Your task to perform on an android device: Go to Amazon Image 0: 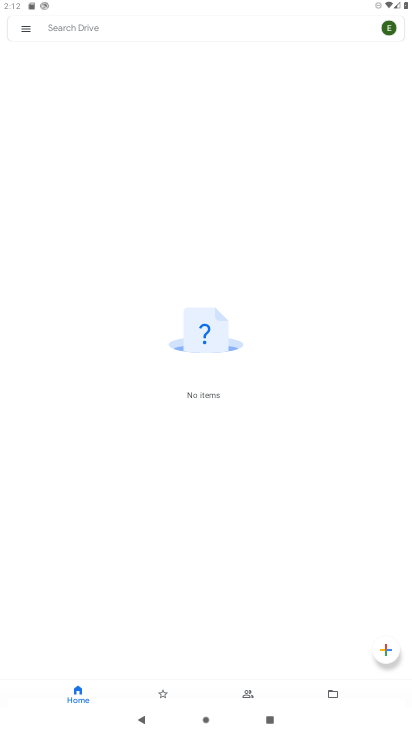
Step 0: press home button
Your task to perform on an android device: Go to Amazon Image 1: 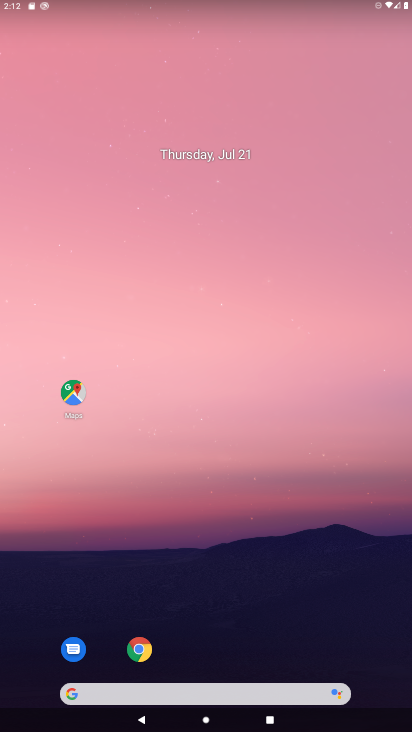
Step 1: drag from (275, 605) to (9, 12)
Your task to perform on an android device: Go to Amazon Image 2: 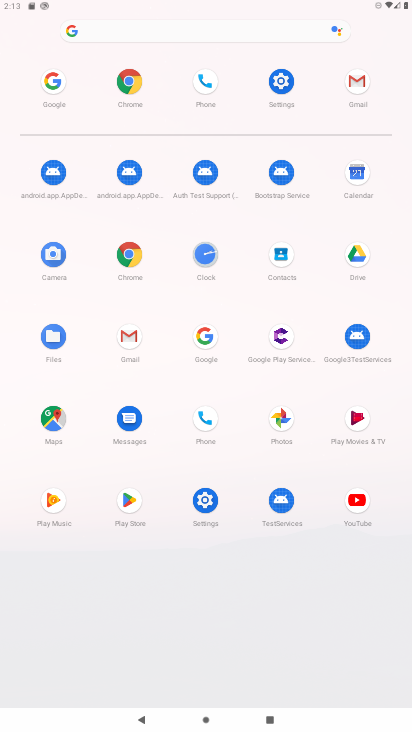
Step 2: click (129, 89)
Your task to perform on an android device: Go to Amazon Image 3: 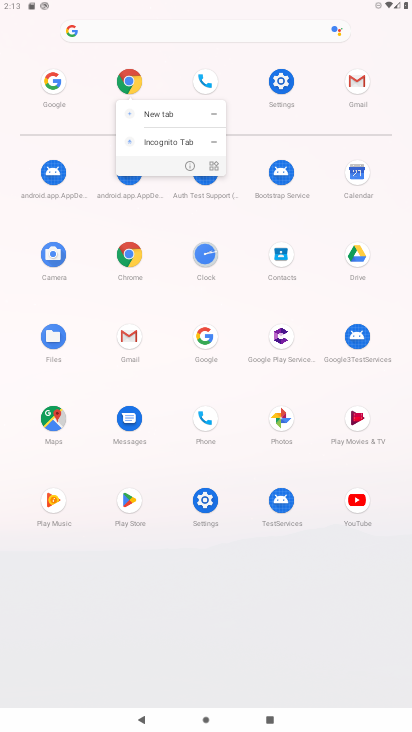
Step 3: click (129, 89)
Your task to perform on an android device: Go to Amazon Image 4: 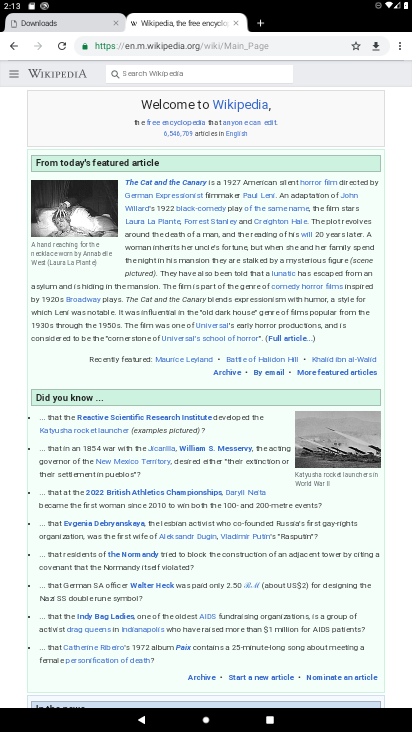
Step 4: click (17, 49)
Your task to perform on an android device: Go to Amazon Image 5: 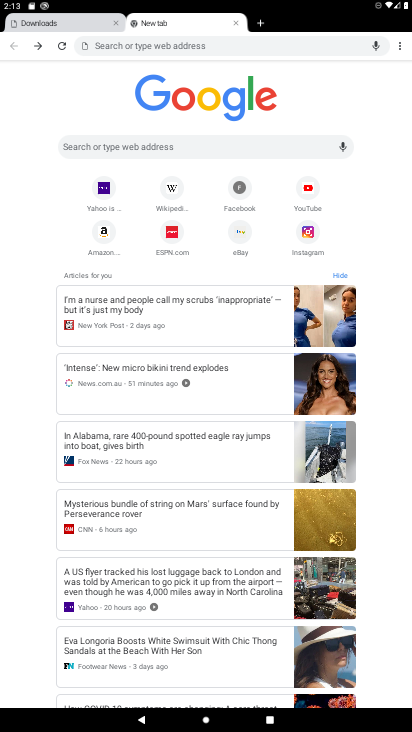
Step 5: click (104, 235)
Your task to perform on an android device: Go to Amazon Image 6: 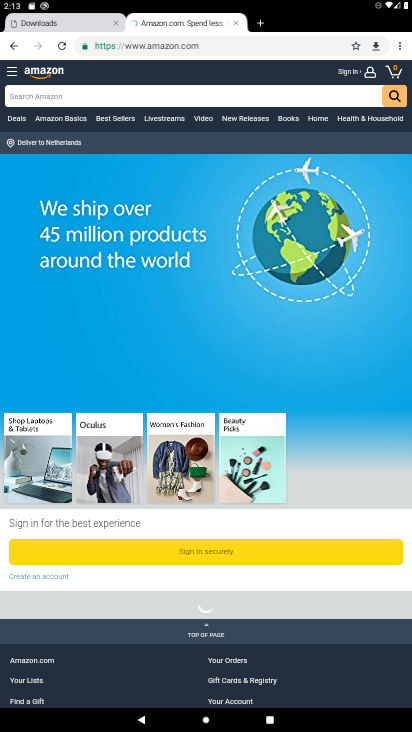
Step 6: task complete